Your task to perform on an android device: toggle notifications settings in the gmail app Image 0: 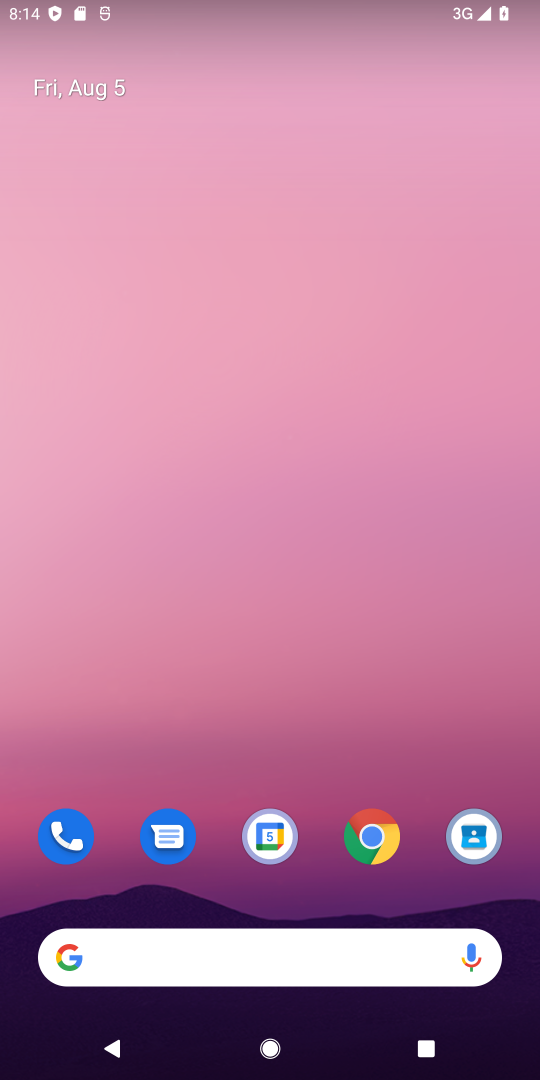
Step 0: drag from (286, 774) to (279, 107)
Your task to perform on an android device: toggle notifications settings in the gmail app Image 1: 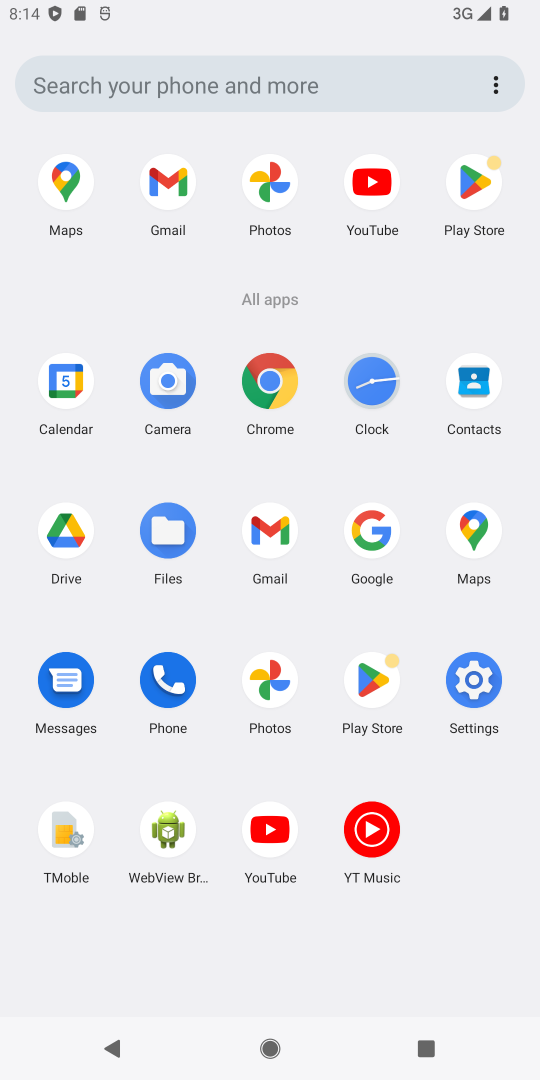
Step 1: click (165, 179)
Your task to perform on an android device: toggle notifications settings in the gmail app Image 2: 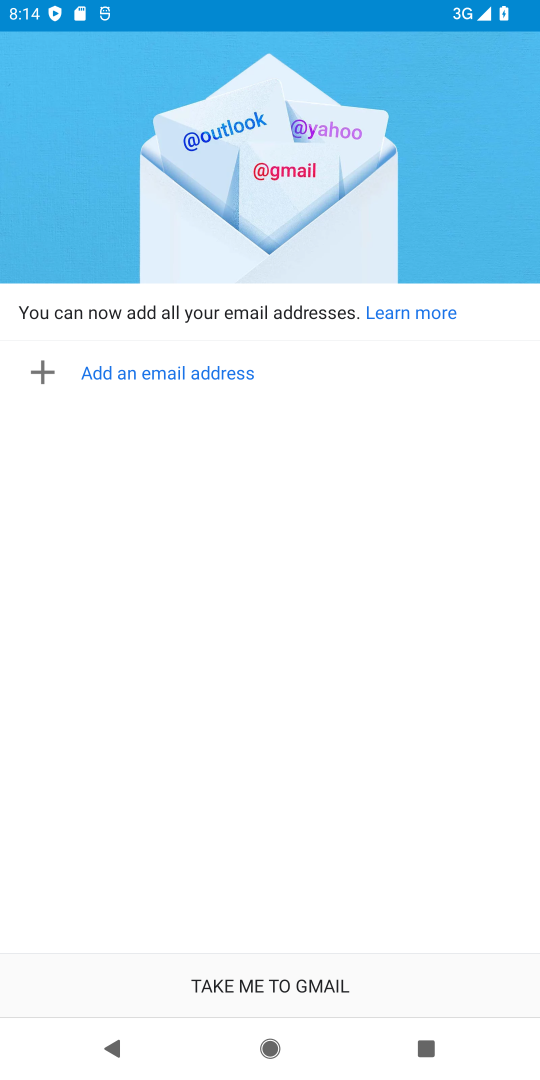
Step 2: task complete